Your task to perform on an android device: turn on data saver in the chrome app Image 0: 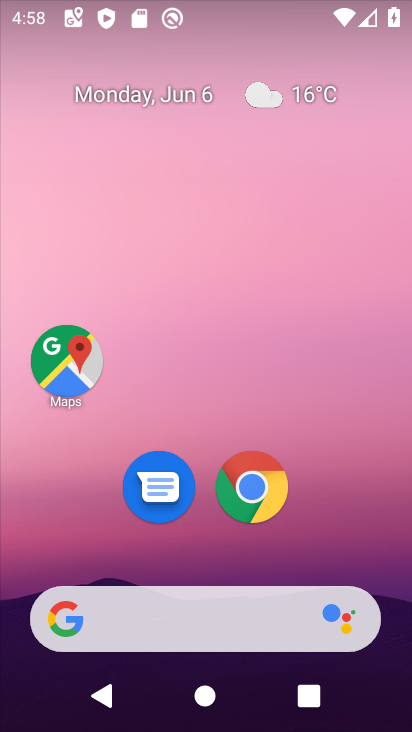
Step 0: click (269, 491)
Your task to perform on an android device: turn on data saver in the chrome app Image 1: 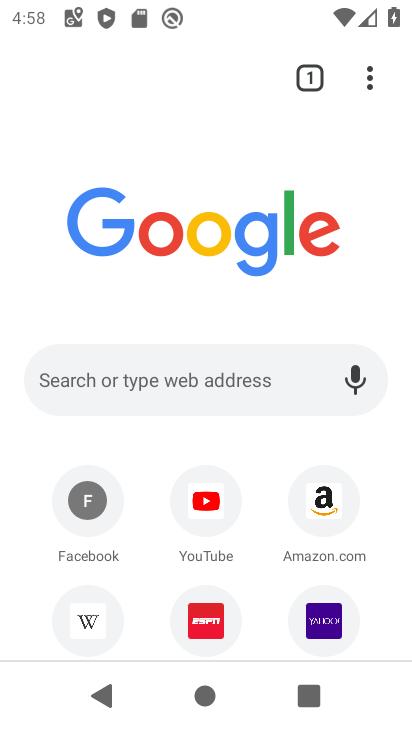
Step 1: click (365, 83)
Your task to perform on an android device: turn on data saver in the chrome app Image 2: 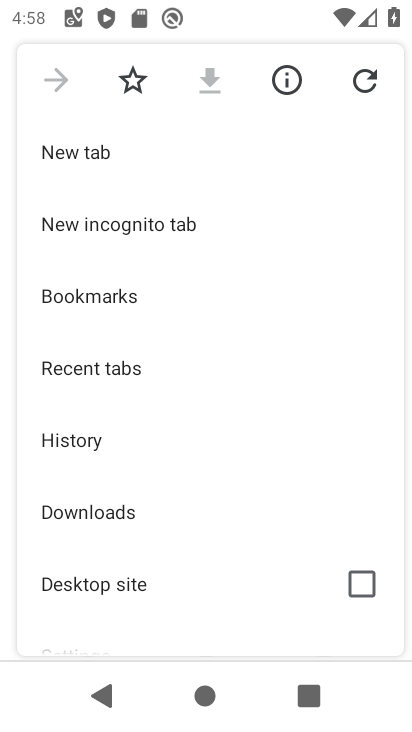
Step 2: drag from (224, 560) to (270, 223)
Your task to perform on an android device: turn on data saver in the chrome app Image 3: 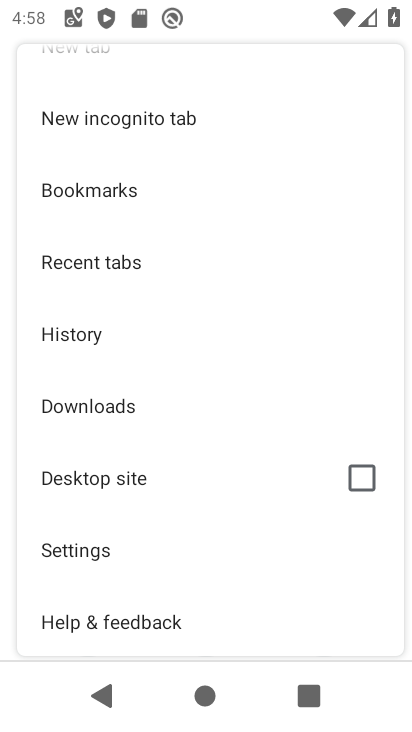
Step 3: click (133, 560)
Your task to perform on an android device: turn on data saver in the chrome app Image 4: 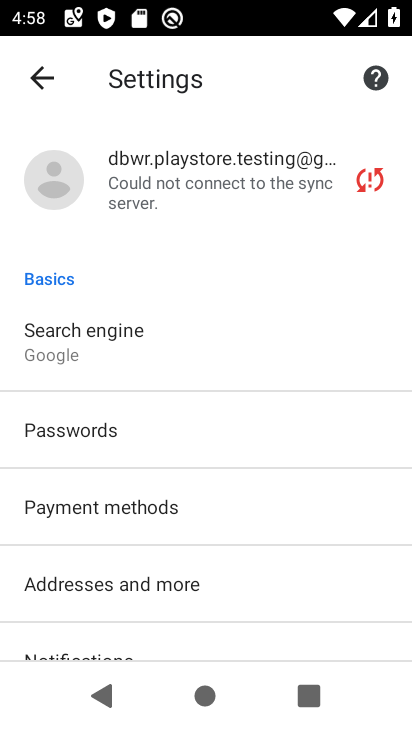
Step 4: drag from (240, 583) to (252, 124)
Your task to perform on an android device: turn on data saver in the chrome app Image 5: 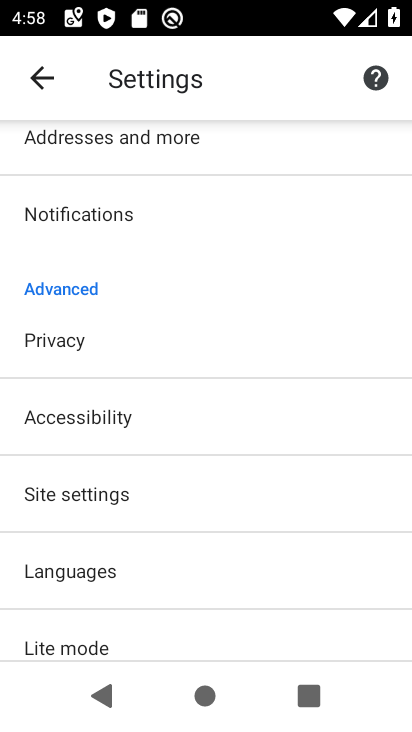
Step 5: click (162, 643)
Your task to perform on an android device: turn on data saver in the chrome app Image 6: 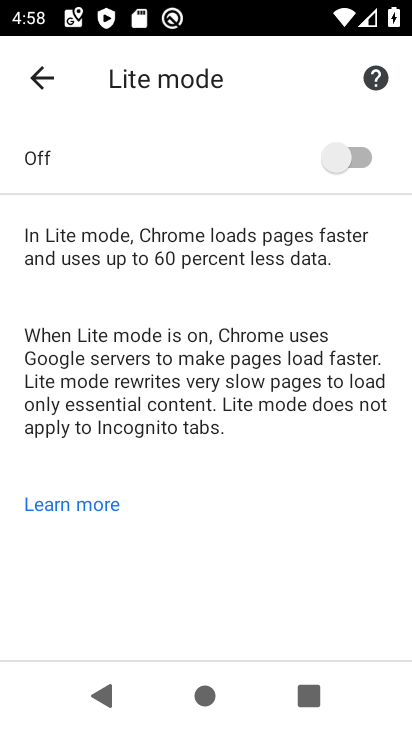
Step 6: click (349, 151)
Your task to perform on an android device: turn on data saver in the chrome app Image 7: 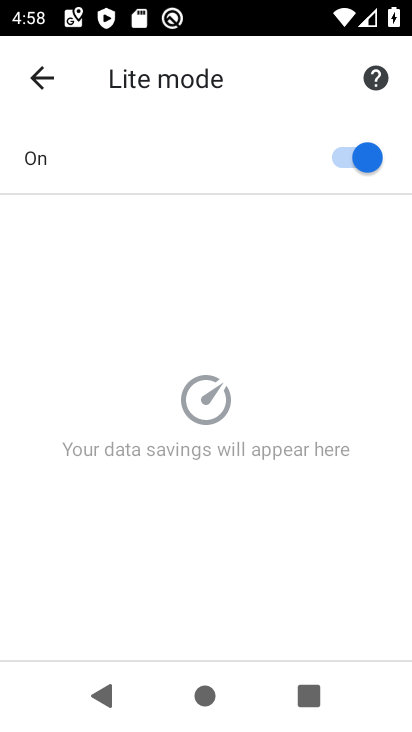
Step 7: task complete